Your task to perform on an android device: Open Yahoo.com Image 0: 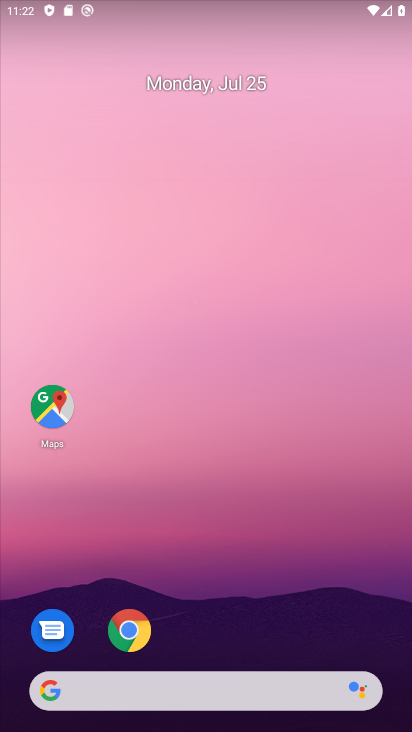
Step 0: drag from (325, 672) to (294, 189)
Your task to perform on an android device: Open Yahoo.com Image 1: 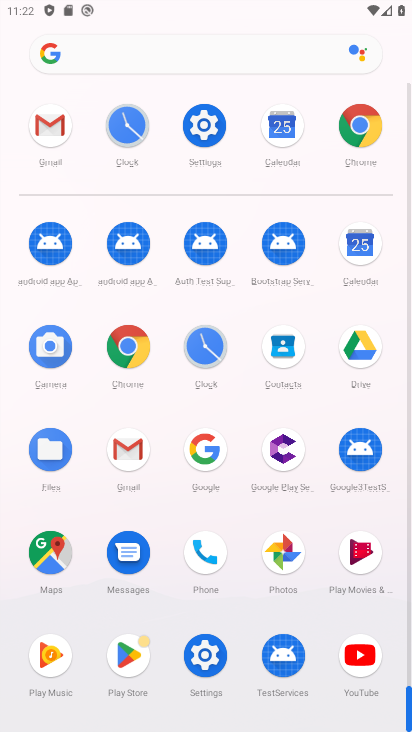
Step 1: click (351, 124)
Your task to perform on an android device: Open Yahoo.com Image 2: 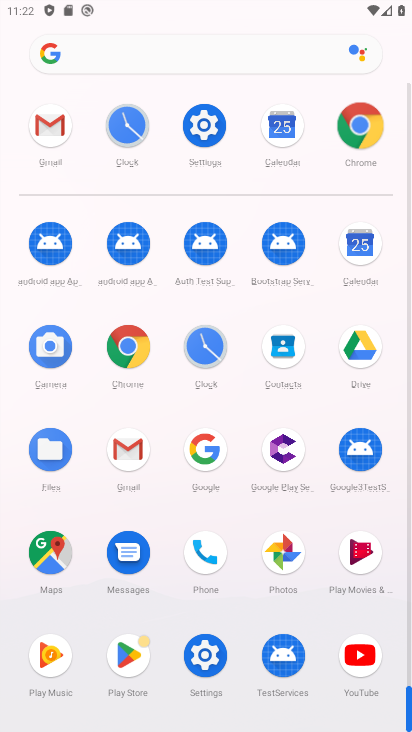
Step 2: click (352, 123)
Your task to perform on an android device: Open Yahoo.com Image 3: 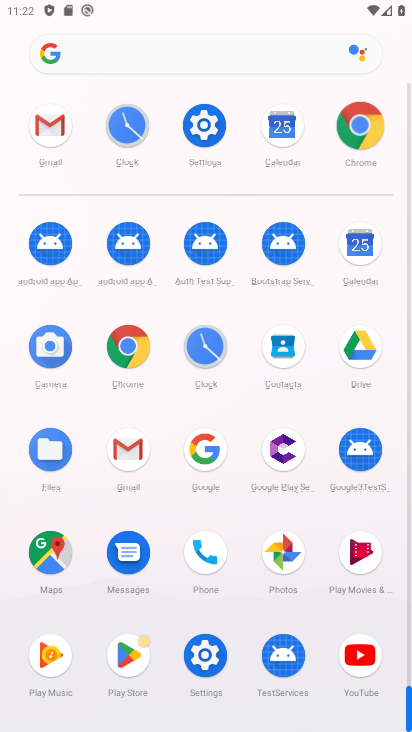
Step 3: click (352, 123)
Your task to perform on an android device: Open Yahoo.com Image 4: 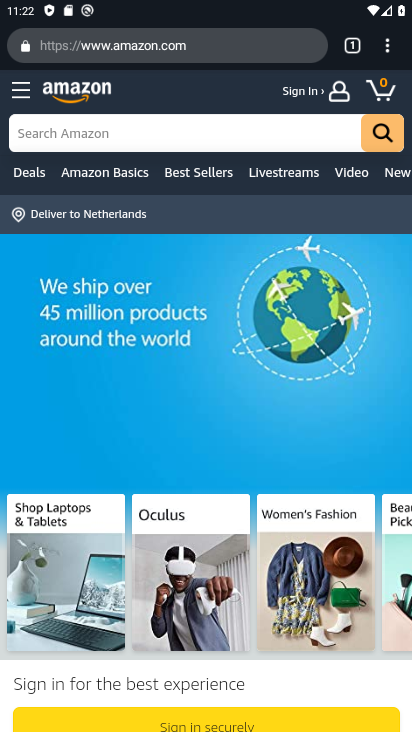
Step 4: drag from (389, 50) to (202, 83)
Your task to perform on an android device: Open Yahoo.com Image 5: 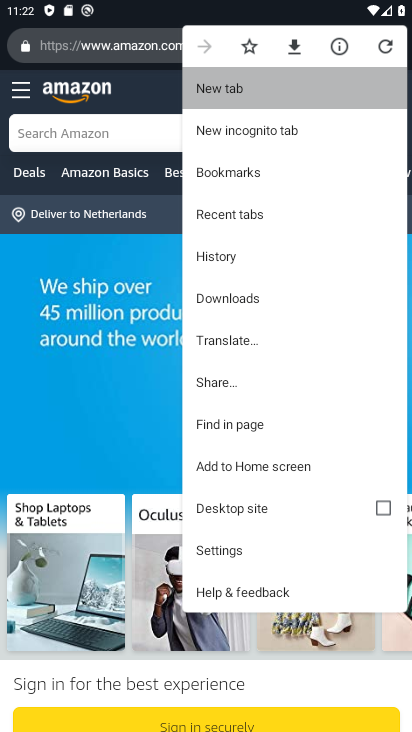
Step 5: click (210, 74)
Your task to perform on an android device: Open Yahoo.com Image 6: 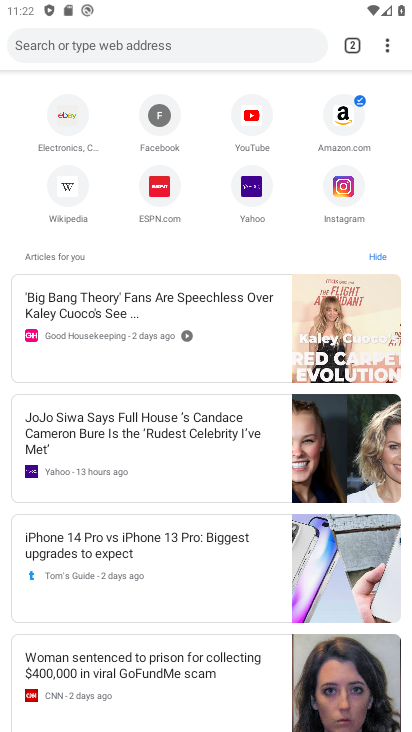
Step 6: click (231, 191)
Your task to perform on an android device: Open Yahoo.com Image 7: 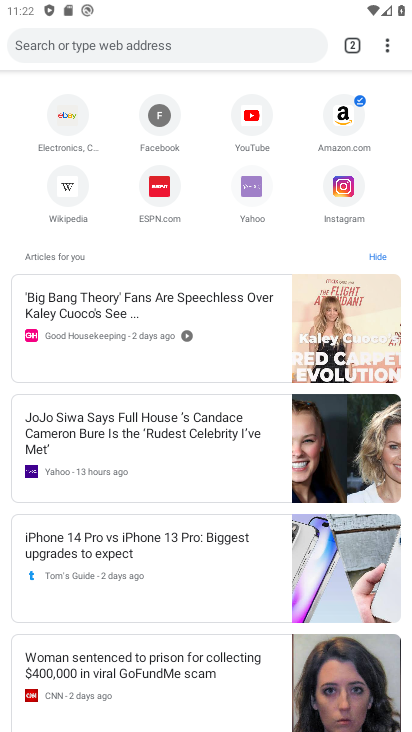
Step 7: click (237, 191)
Your task to perform on an android device: Open Yahoo.com Image 8: 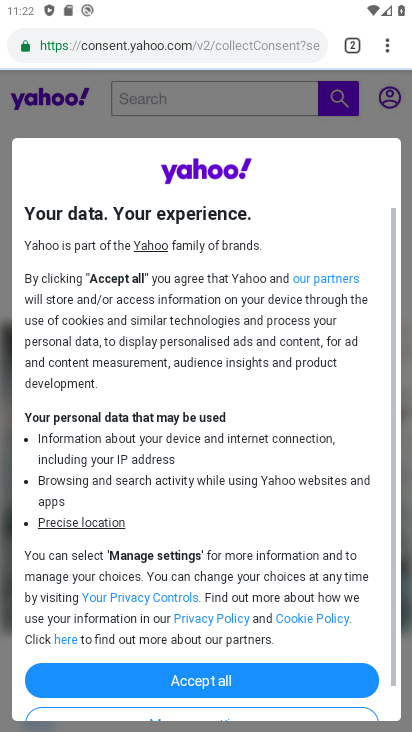
Step 8: task complete